Your task to perform on an android device: toggle show notifications on the lock screen Image 0: 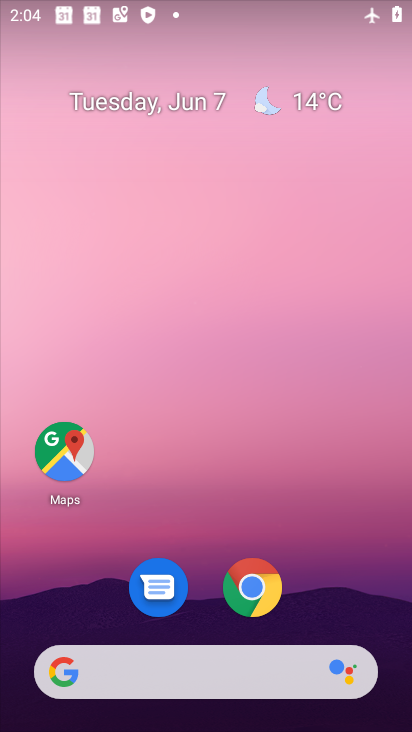
Step 0: drag from (200, 662) to (250, 137)
Your task to perform on an android device: toggle show notifications on the lock screen Image 1: 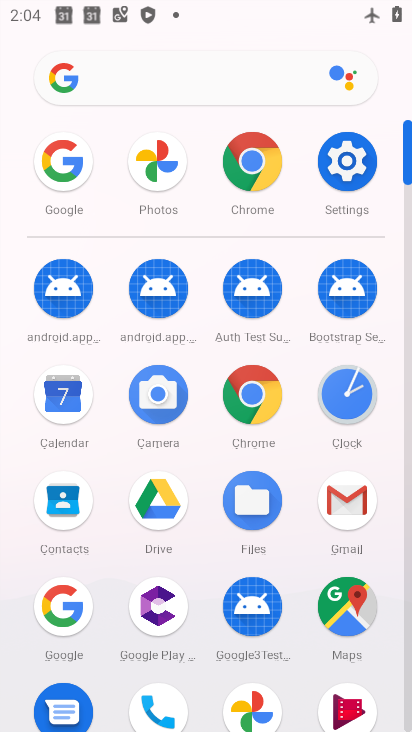
Step 1: click (331, 181)
Your task to perform on an android device: toggle show notifications on the lock screen Image 2: 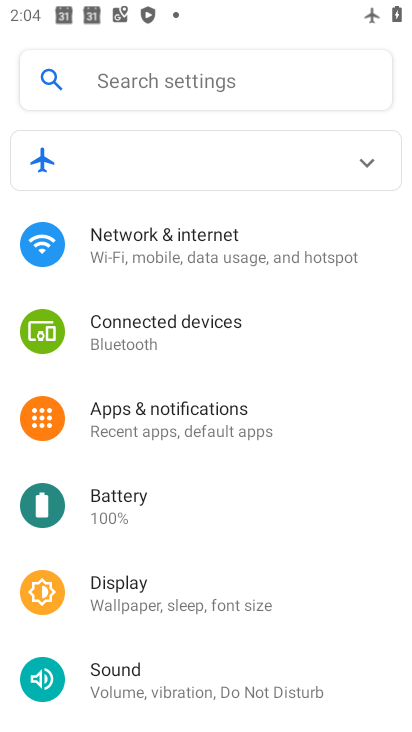
Step 2: click (222, 418)
Your task to perform on an android device: toggle show notifications on the lock screen Image 3: 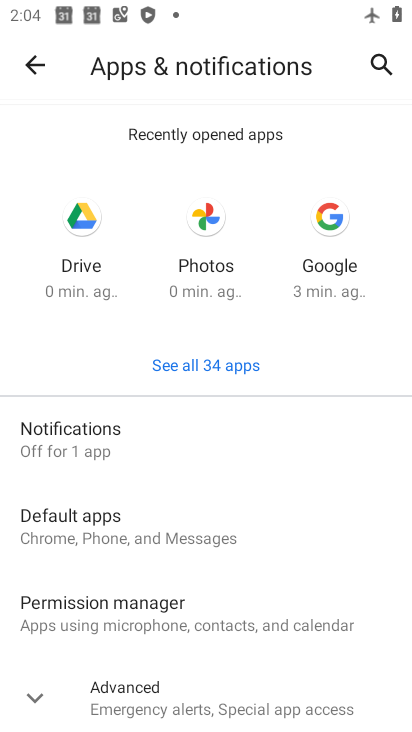
Step 3: click (206, 423)
Your task to perform on an android device: toggle show notifications on the lock screen Image 4: 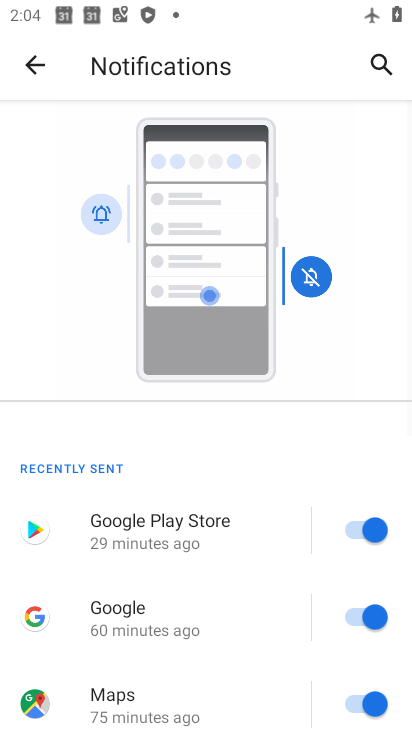
Step 4: drag from (155, 634) to (229, 202)
Your task to perform on an android device: toggle show notifications on the lock screen Image 5: 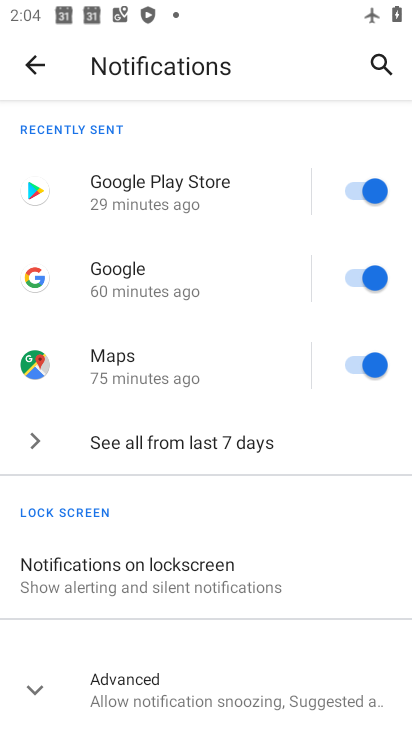
Step 5: click (229, 582)
Your task to perform on an android device: toggle show notifications on the lock screen Image 6: 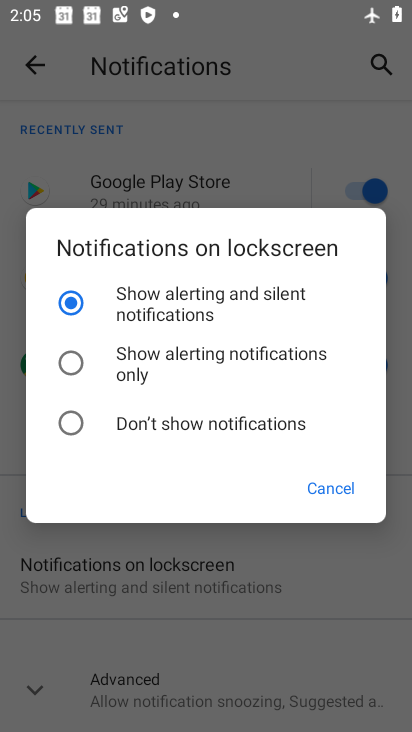
Step 6: click (255, 434)
Your task to perform on an android device: toggle show notifications on the lock screen Image 7: 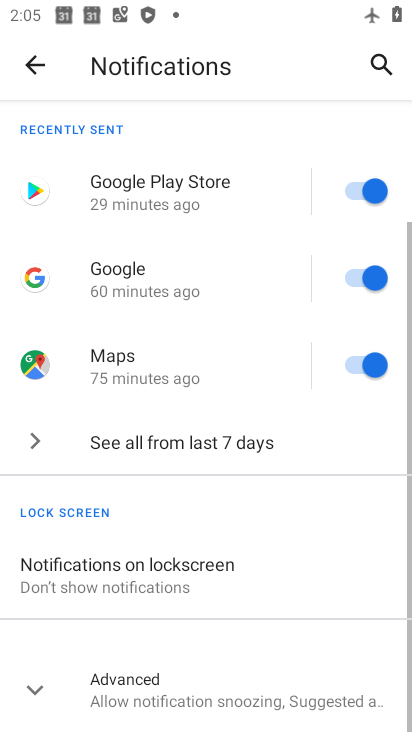
Step 7: task complete